Your task to perform on an android device: How much does a 3 bedroom apartment rent for in Washington DC? Image 0: 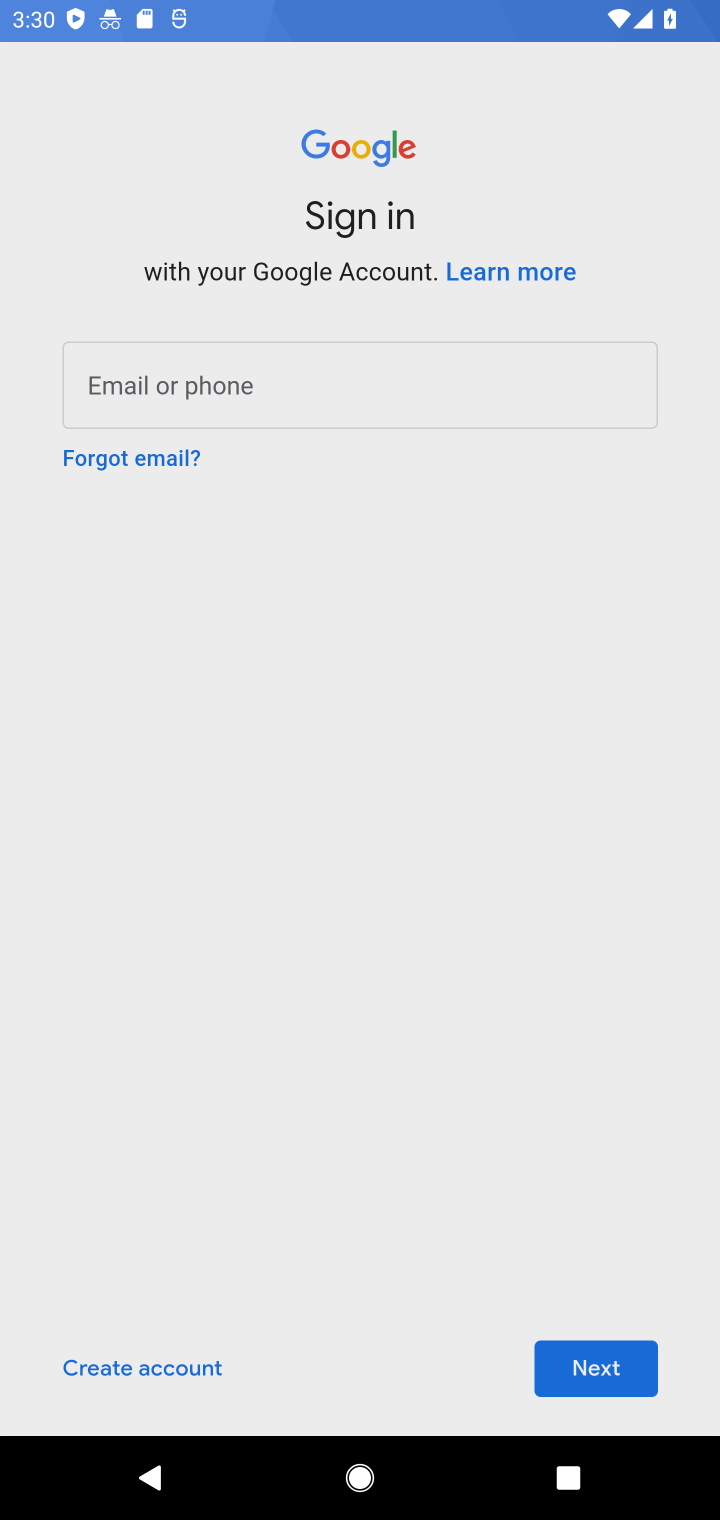
Step 0: press home button
Your task to perform on an android device: How much does a 3 bedroom apartment rent for in Washington DC? Image 1: 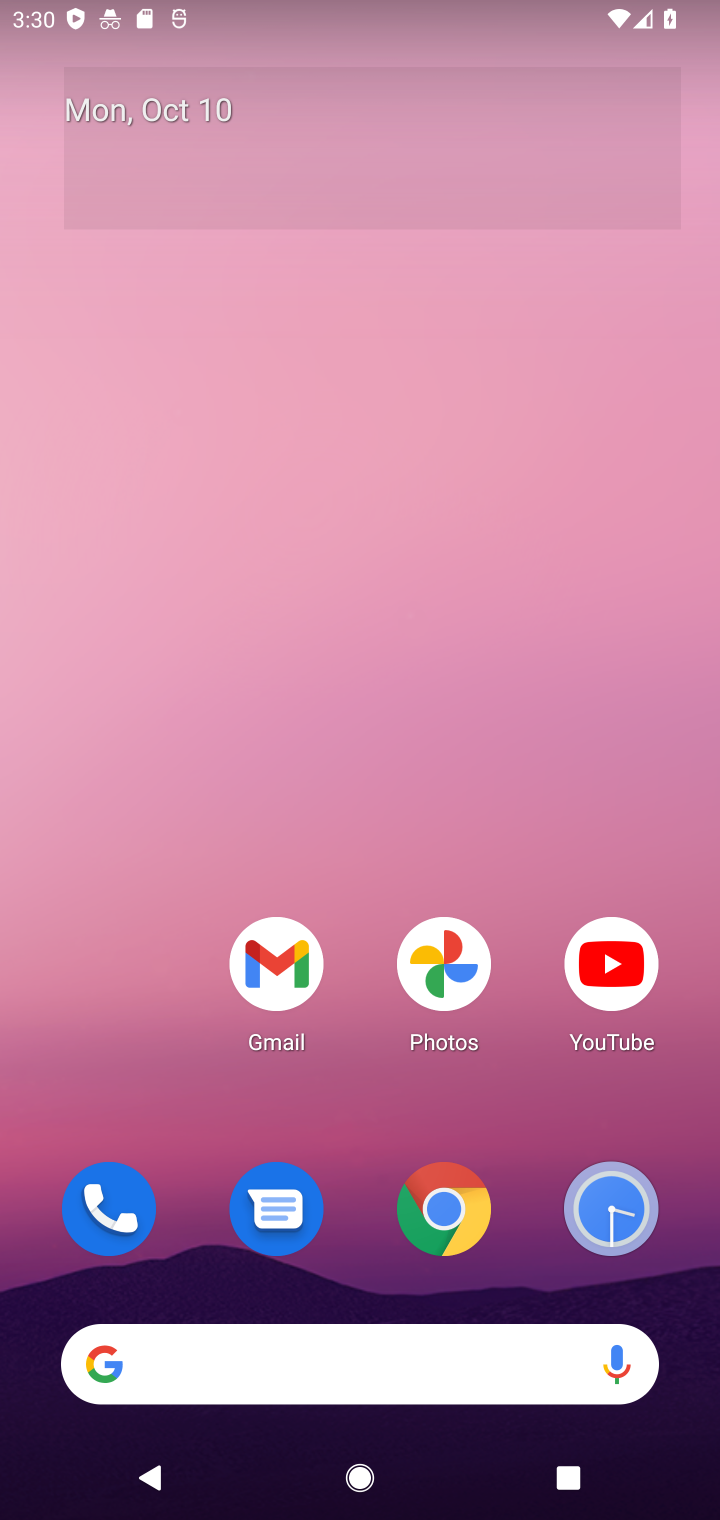
Step 1: click (466, 1249)
Your task to perform on an android device: How much does a 3 bedroom apartment rent for in Washington DC? Image 2: 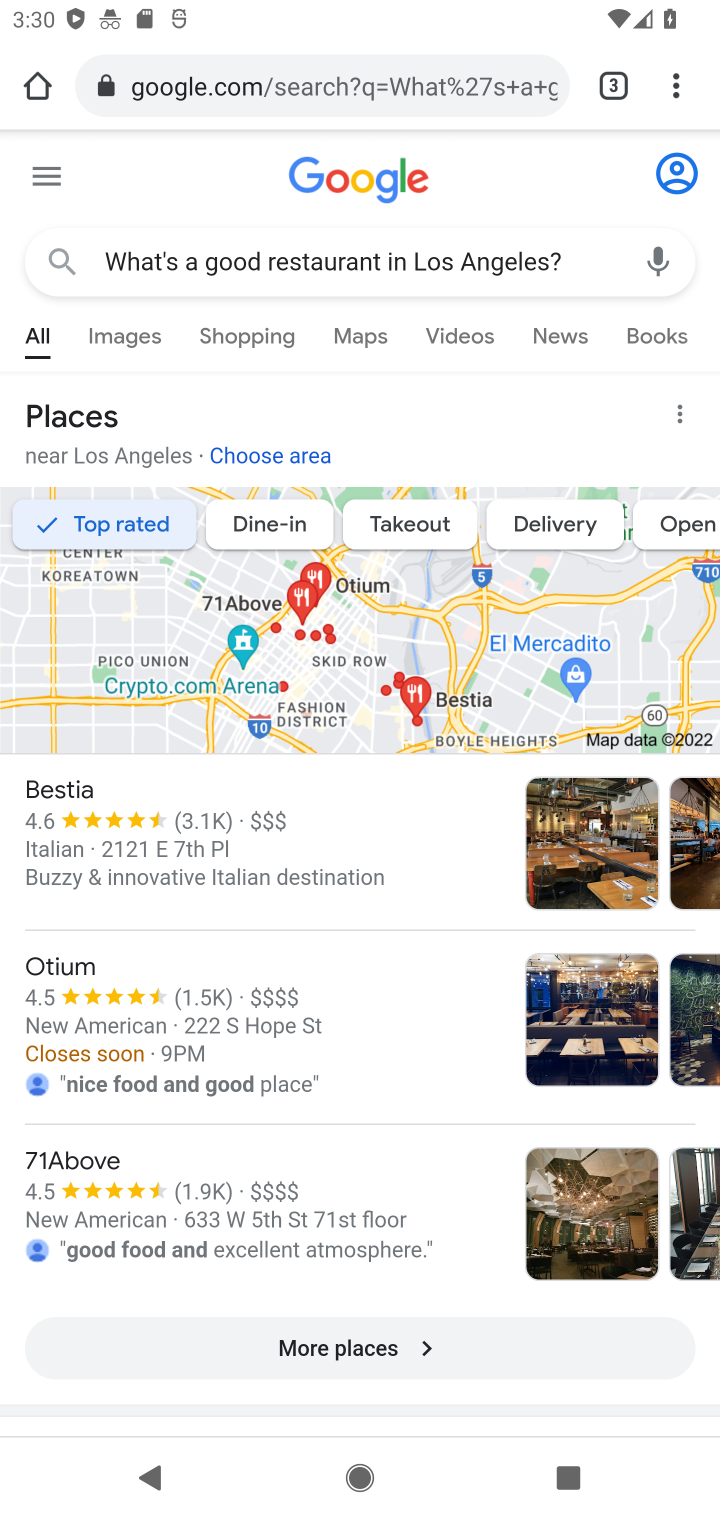
Step 2: click (576, 253)
Your task to perform on an android device: How much does a 3 bedroom apartment rent for in Washington DC? Image 3: 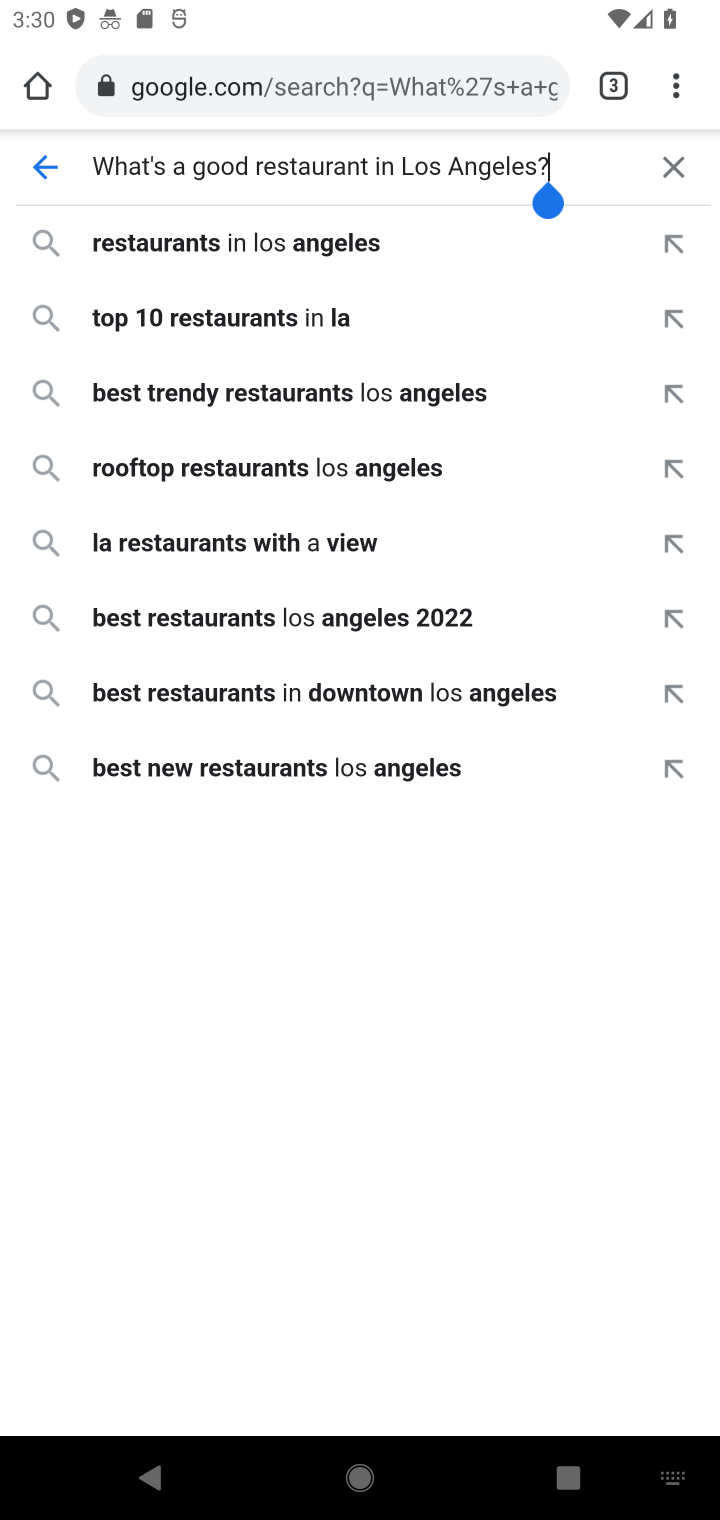
Step 3: click (678, 173)
Your task to perform on an android device: How much does a 3 bedroom apartment rent for in Washington DC? Image 4: 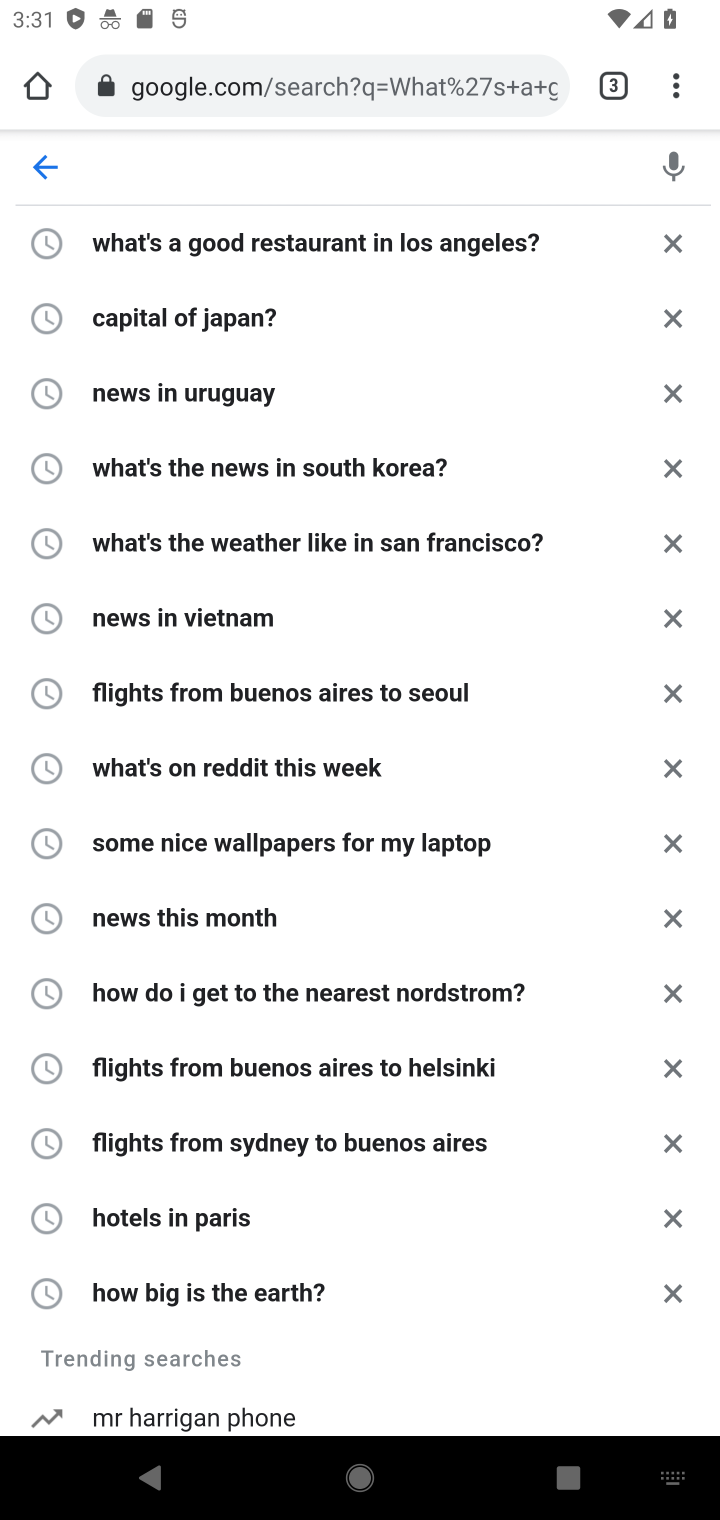
Step 4: type "How much does a 3 bedroom apartment rent for in Washington DC?"
Your task to perform on an android device: How much does a 3 bedroom apartment rent for in Washington DC? Image 5: 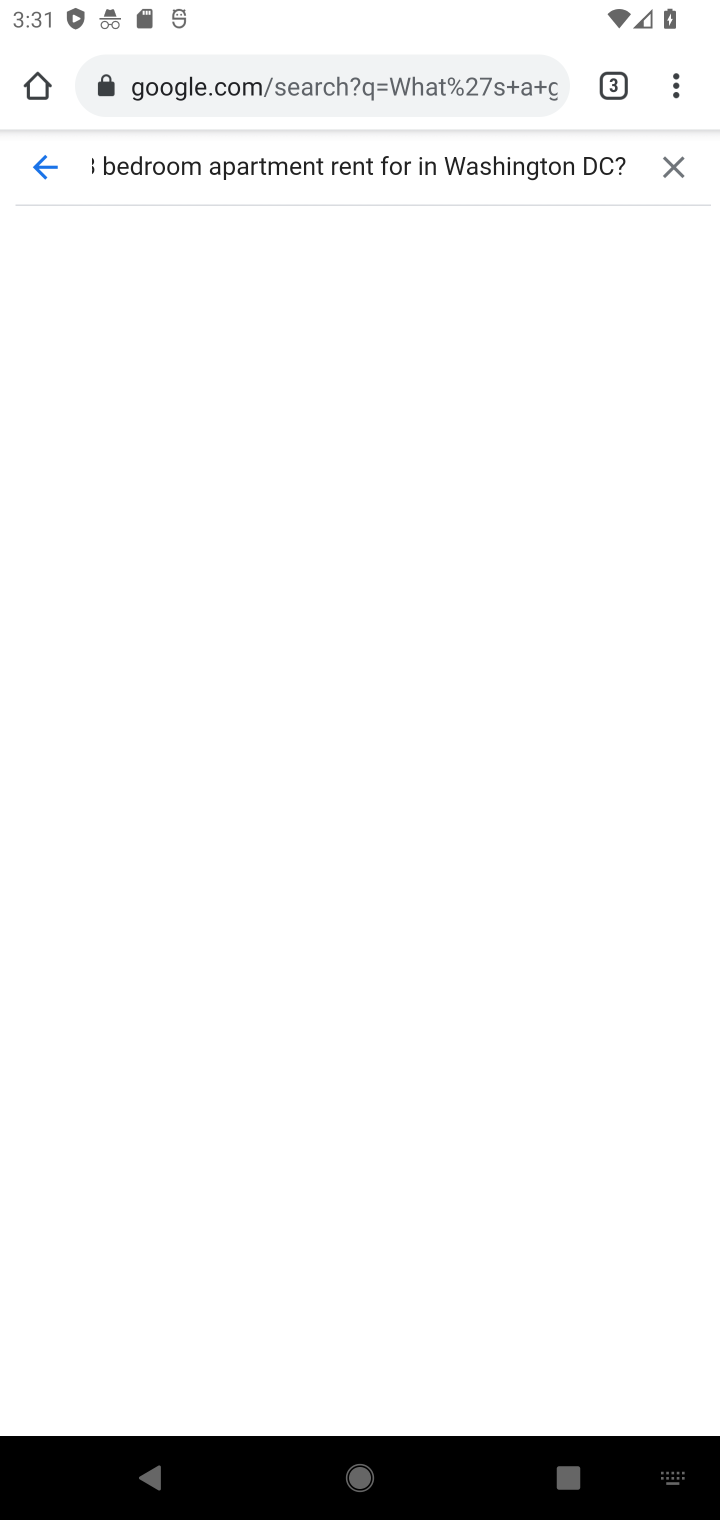
Step 5: press enter
Your task to perform on an android device: How much does a 3 bedroom apartment rent for in Washington DC? Image 6: 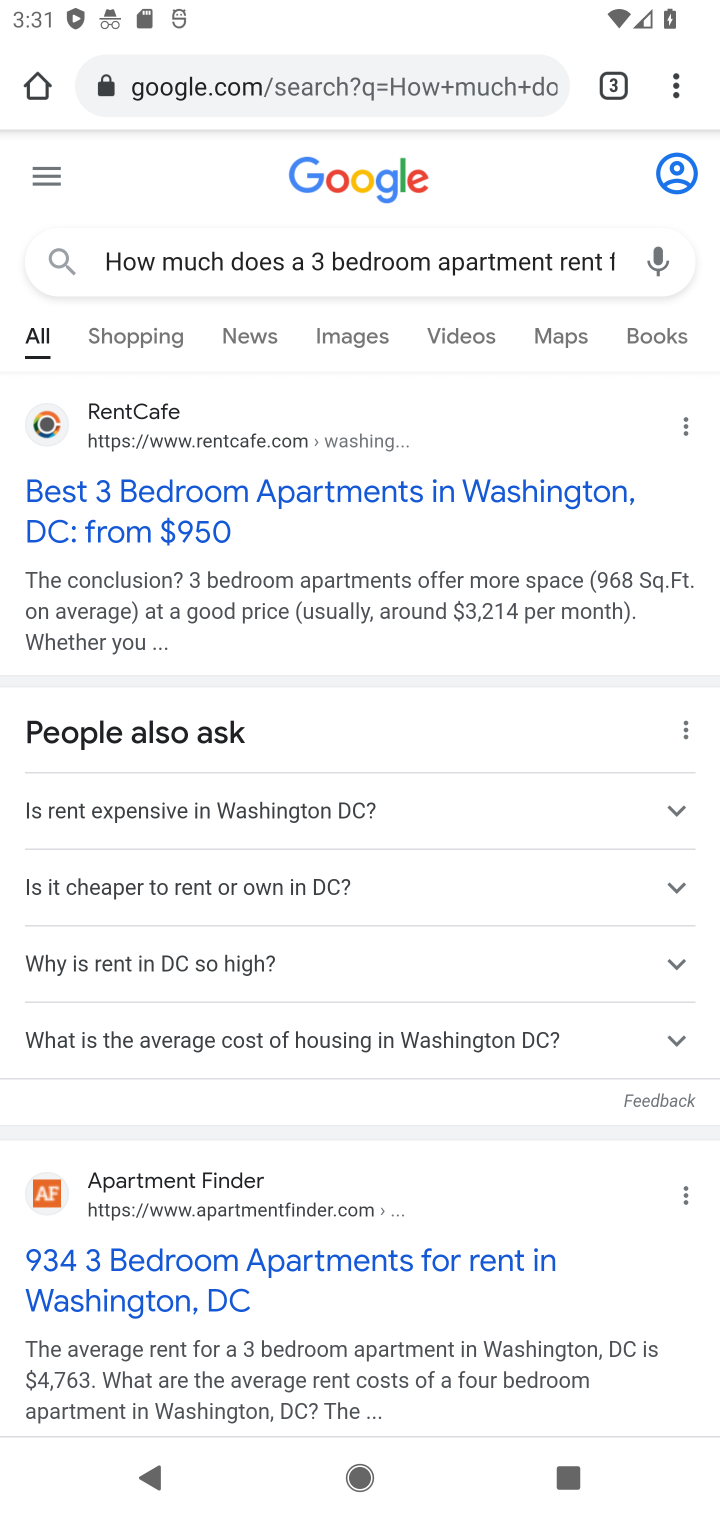
Step 6: click (243, 491)
Your task to perform on an android device: How much does a 3 bedroom apartment rent for in Washington DC? Image 7: 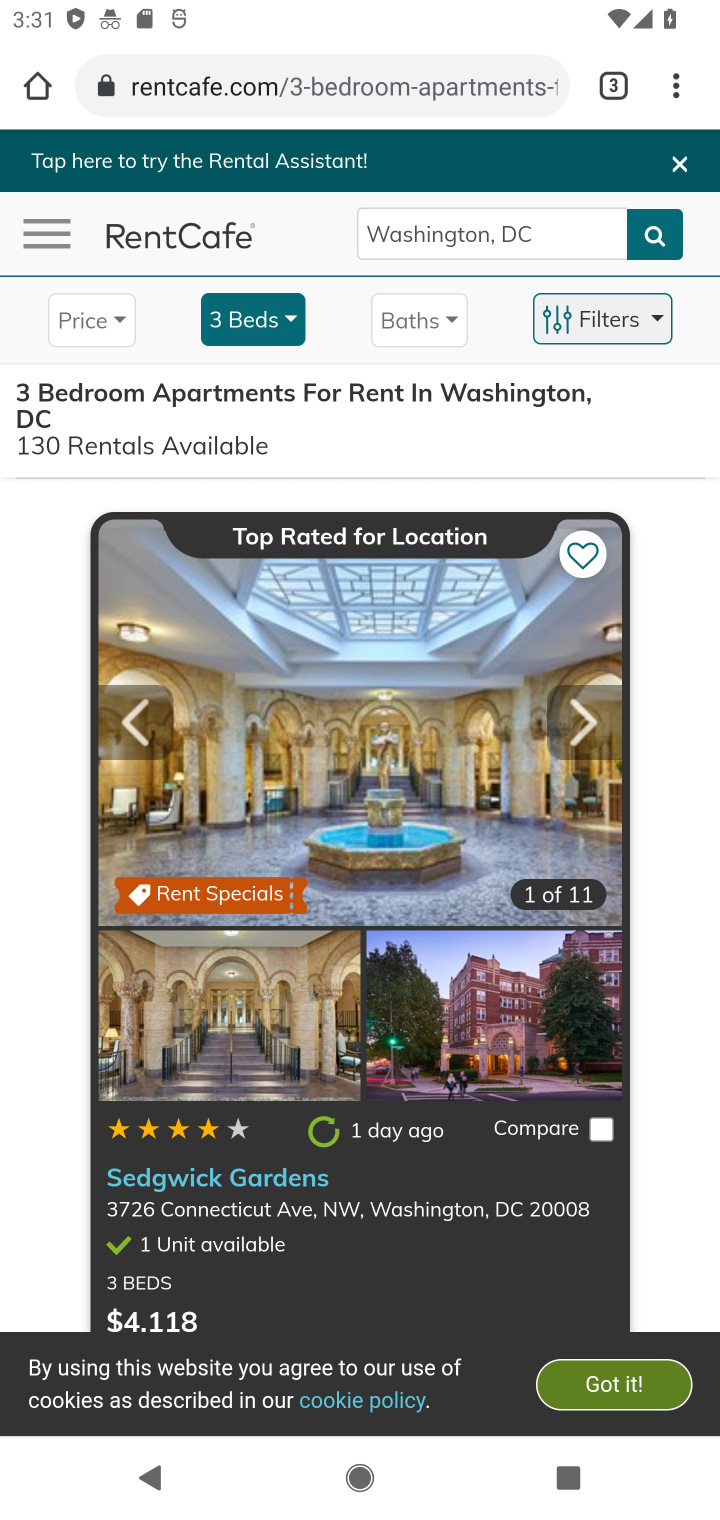
Step 7: task complete